Your task to perform on an android device: Open Reddit.com Image 0: 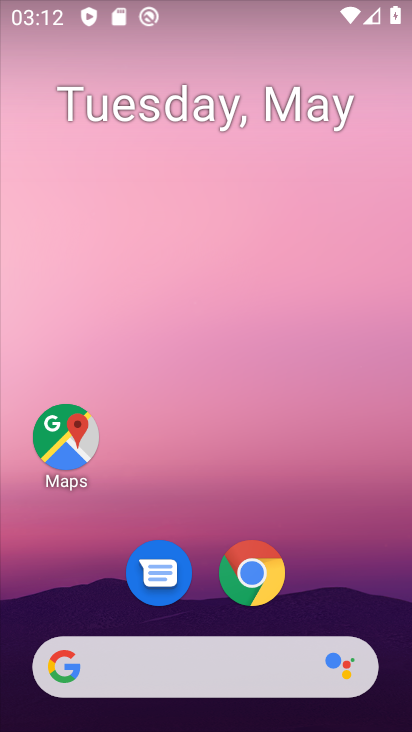
Step 0: click (251, 570)
Your task to perform on an android device: Open Reddit.com Image 1: 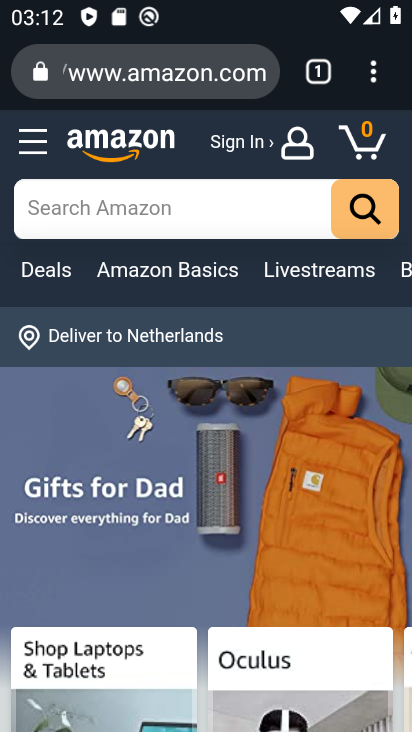
Step 1: click (308, 78)
Your task to perform on an android device: Open Reddit.com Image 2: 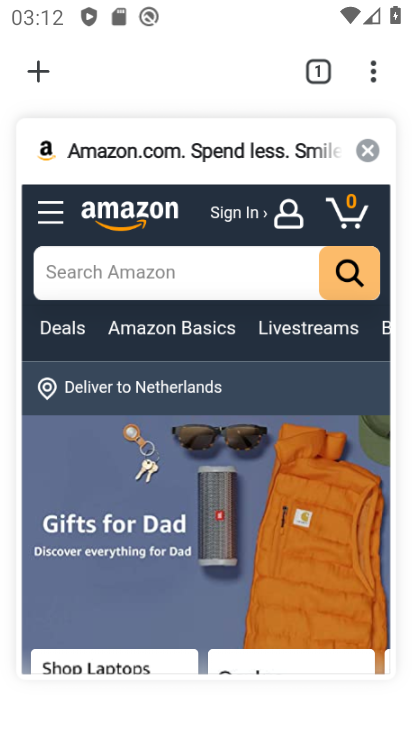
Step 2: click (42, 66)
Your task to perform on an android device: Open Reddit.com Image 3: 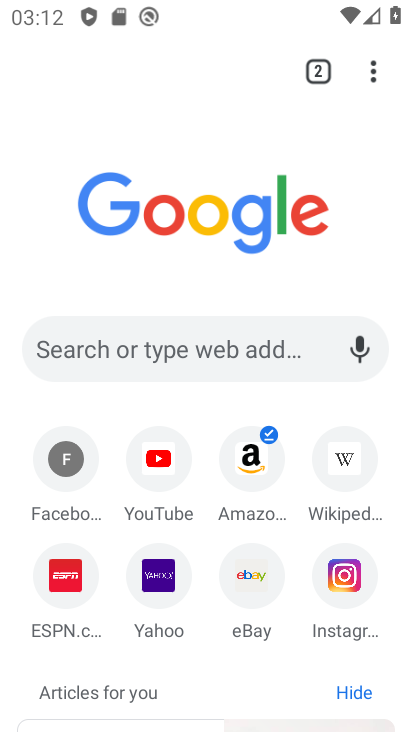
Step 3: click (104, 328)
Your task to perform on an android device: Open Reddit.com Image 4: 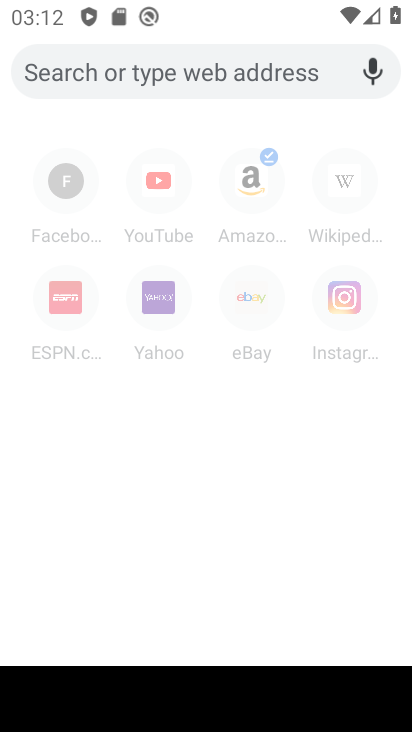
Step 4: type "reddit.com"
Your task to perform on an android device: Open Reddit.com Image 5: 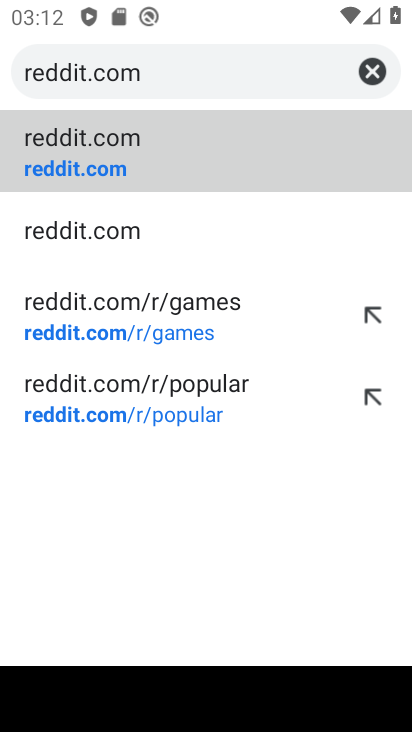
Step 5: click (148, 166)
Your task to perform on an android device: Open Reddit.com Image 6: 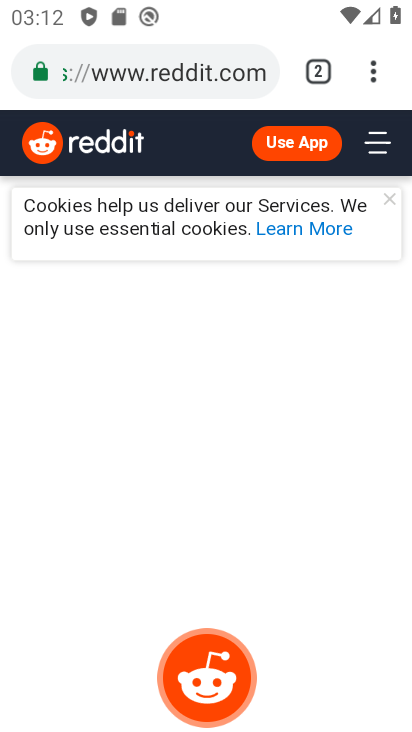
Step 6: task complete